Your task to perform on an android device: add a contact Image 0: 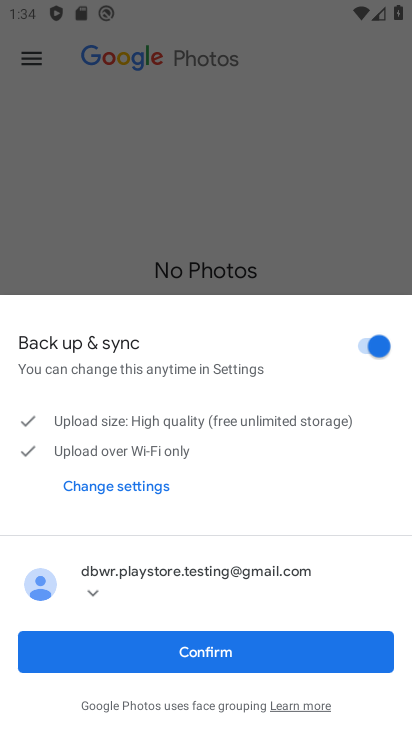
Step 0: click (276, 657)
Your task to perform on an android device: add a contact Image 1: 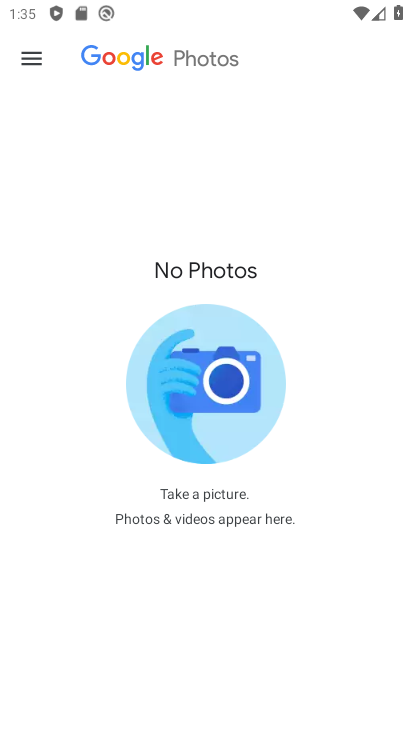
Step 1: press back button
Your task to perform on an android device: add a contact Image 2: 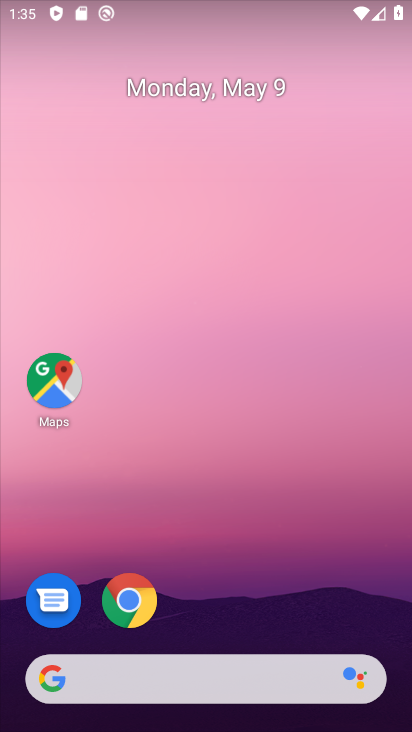
Step 2: drag from (211, 603) to (218, 30)
Your task to perform on an android device: add a contact Image 3: 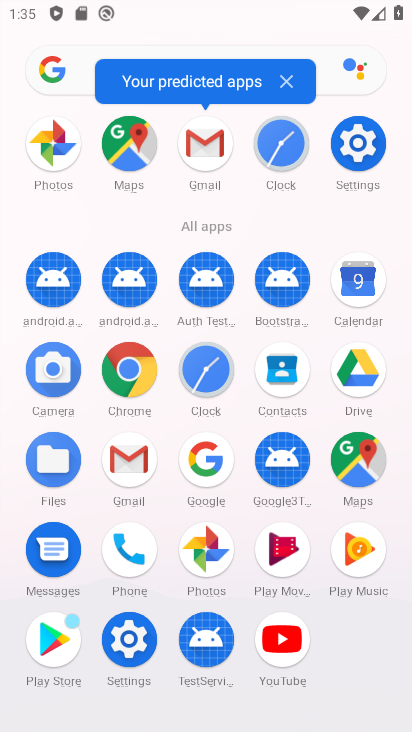
Step 3: drag from (0, 459) to (6, 161)
Your task to perform on an android device: add a contact Image 4: 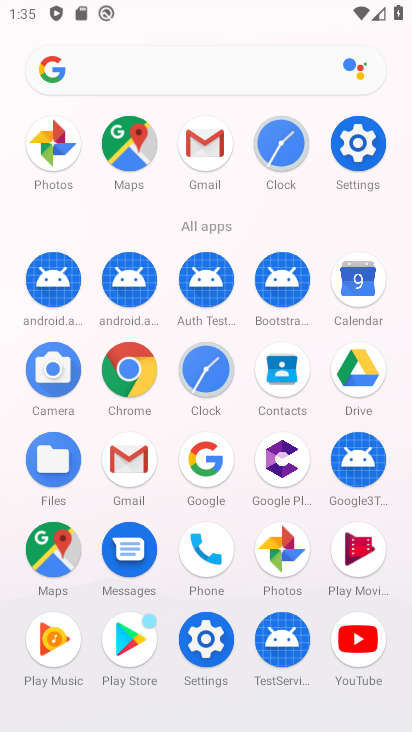
Step 4: click (270, 361)
Your task to perform on an android device: add a contact Image 5: 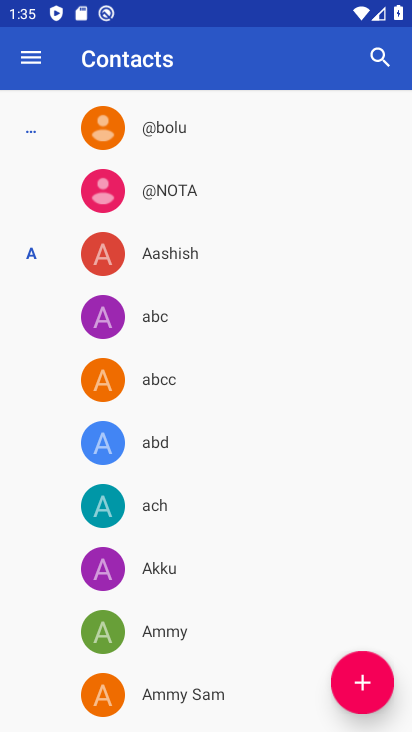
Step 5: click (351, 694)
Your task to perform on an android device: add a contact Image 6: 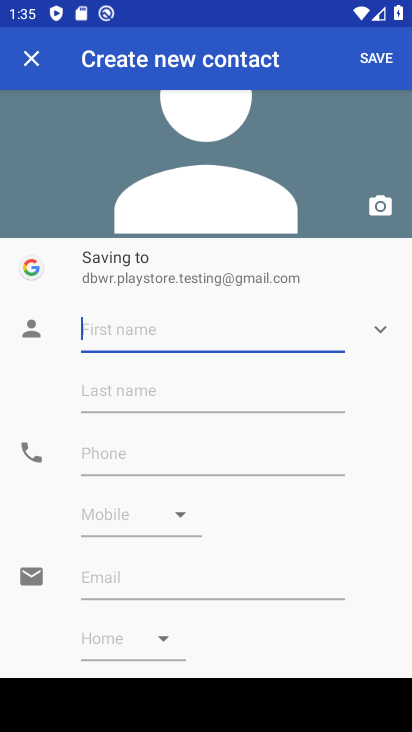
Step 6: type "fgvbjbj"
Your task to perform on an android device: add a contact Image 7: 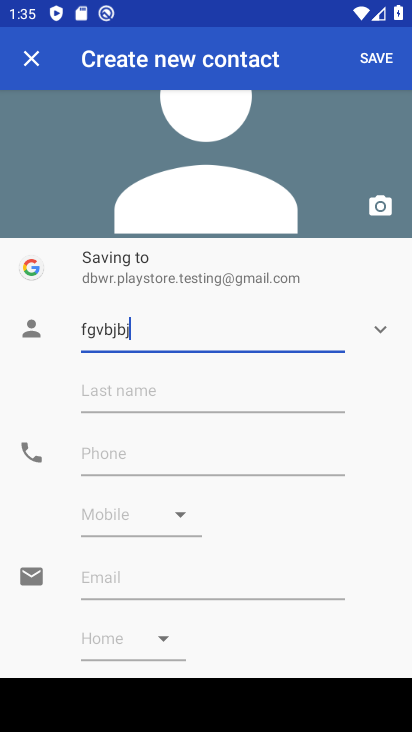
Step 7: click (209, 464)
Your task to perform on an android device: add a contact Image 8: 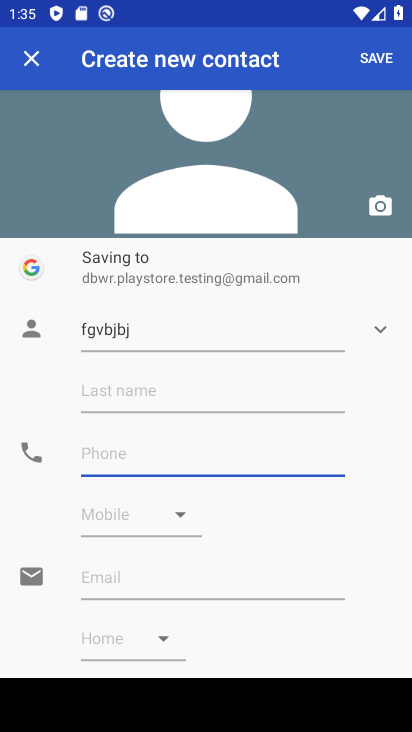
Step 8: type "986534567890"
Your task to perform on an android device: add a contact Image 9: 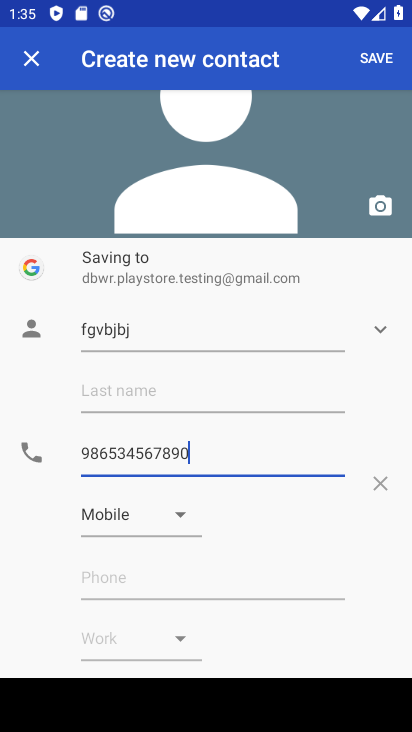
Step 9: type ""
Your task to perform on an android device: add a contact Image 10: 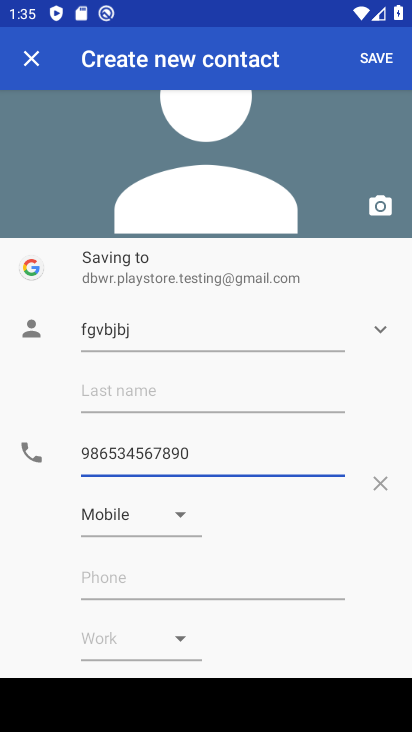
Step 10: click (380, 57)
Your task to perform on an android device: add a contact Image 11: 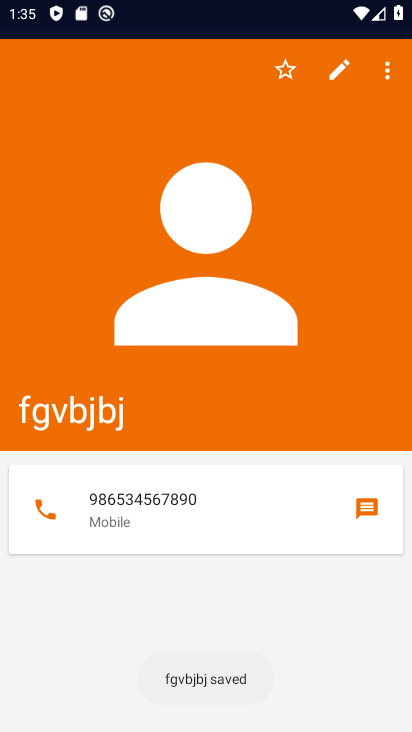
Step 11: task complete